Your task to perform on an android device: toggle improve location accuracy Image 0: 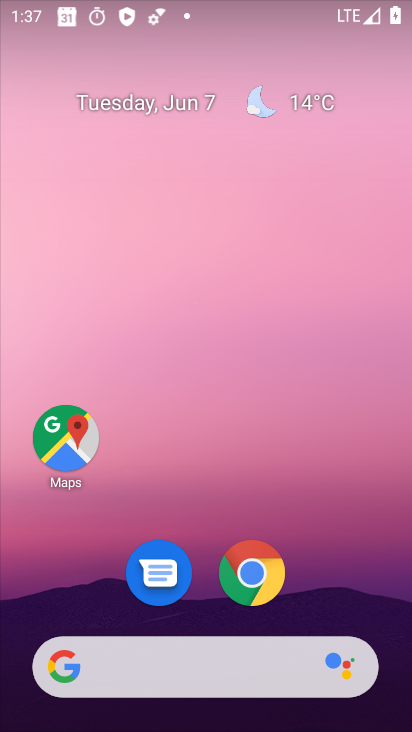
Step 0: drag from (206, 589) to (208, 55)
Your task to perform on an android device: toggle improve location accuracy Image 1: 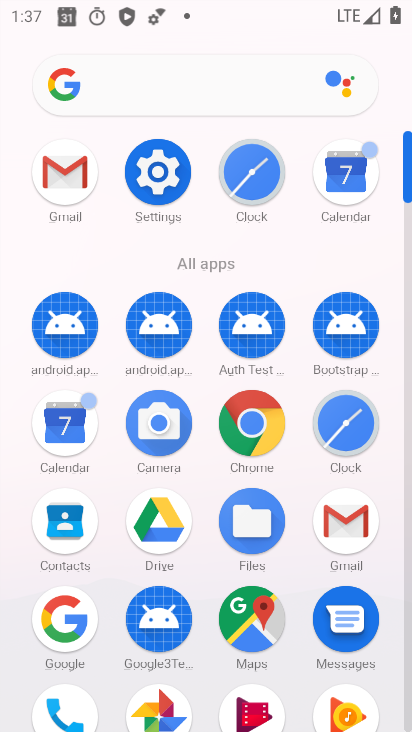
Step 1: click (159, 174)
Your task to perform on an android device: toggle improve location accuracy Image 2: 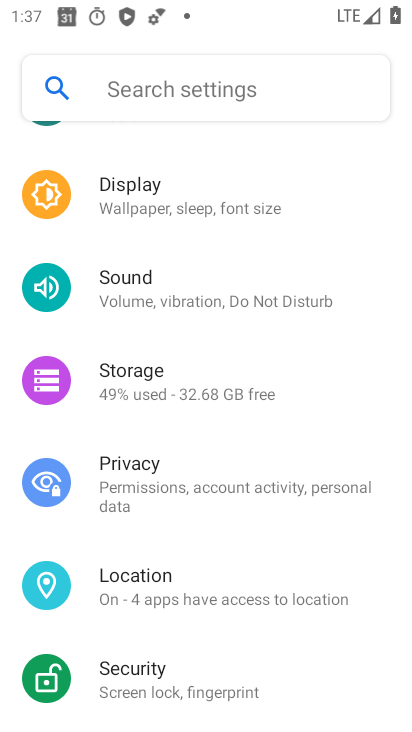
Step 2: click (183, 584)
Your task to perform on an android device: toggle improve location accuracy Image 3: 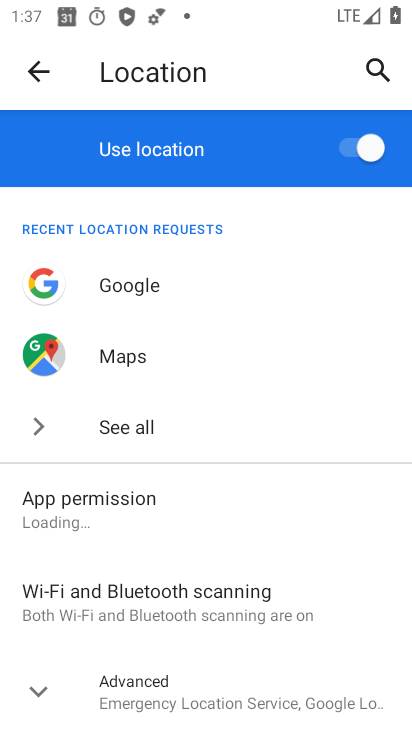
Step 3: click (136, 692)
Your task to perform on an android device: toggle improve location accuracy Image 4: 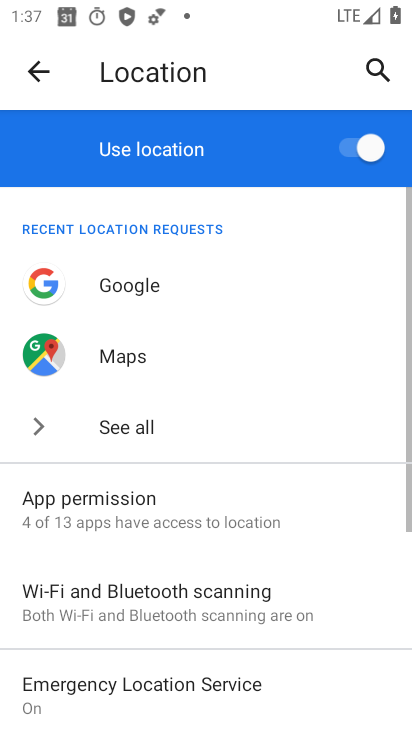
Step 4: drag from (184, 691) to (190, 225)
Your task to perform on an android device: toggle improve location accuracy Image 5: 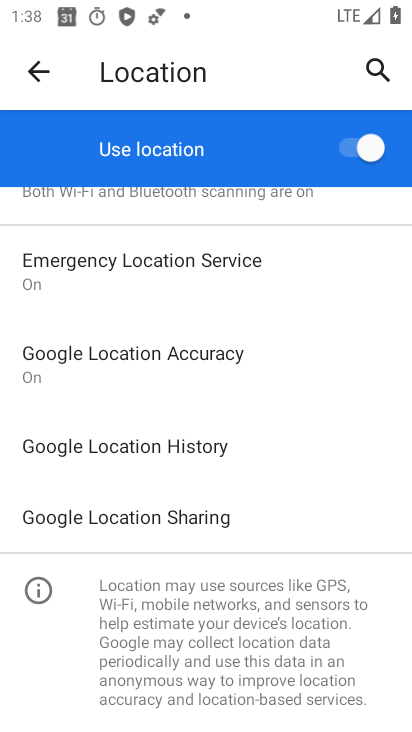
Step 5: click (107, 364)
Your task to perform on an android device: toggle improve location accuracy Image 6: 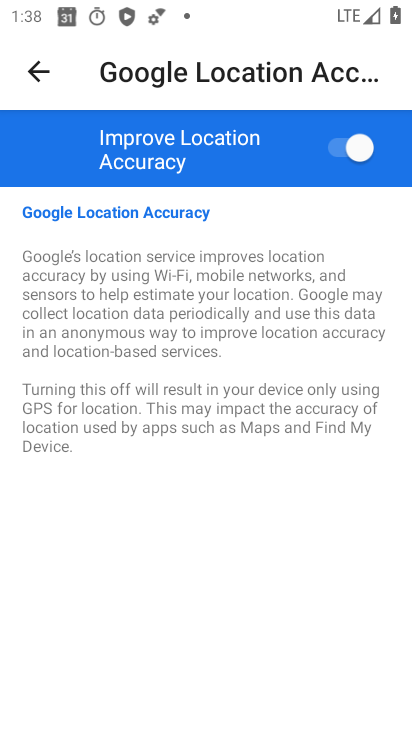
Step 6: click (336, 150)
Your task to perform on an android device: toggle improve location accuracy Image 7: 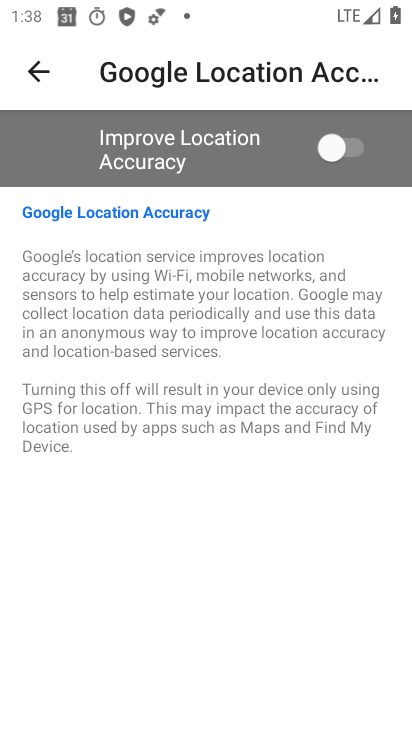
Step 7: task complete